Your task to perform on an android device: Open accessibility settings Image 0: 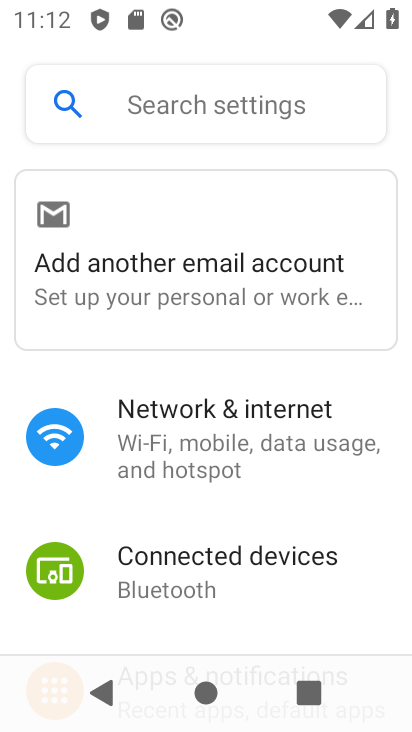
Step 0: drag from (264, 530) to (320, 158)
Your task to perform on an android device: Open accessibility settings Image 1: 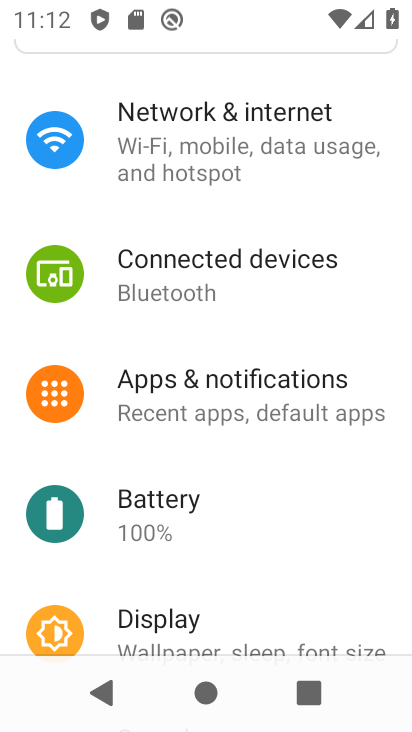
Step 1: drag from (201, 622) to (283, 149)
Your task to perform on an android device: Open accessibility settings Image 2: 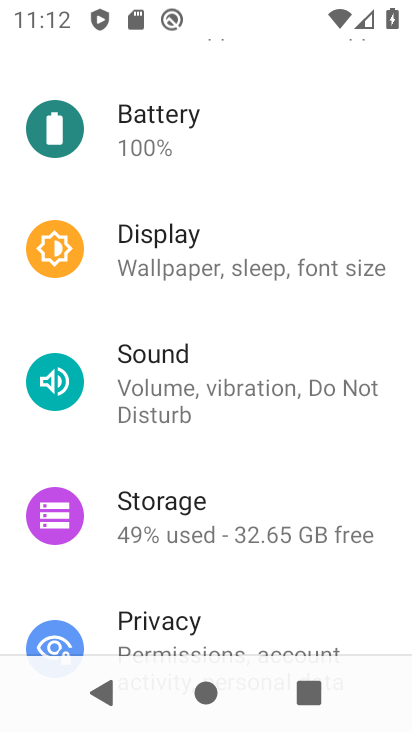
Step 2: drag from (167, 631) to (248, 204)
Your task to perform on an android device: Open accessibility settings Image 3: 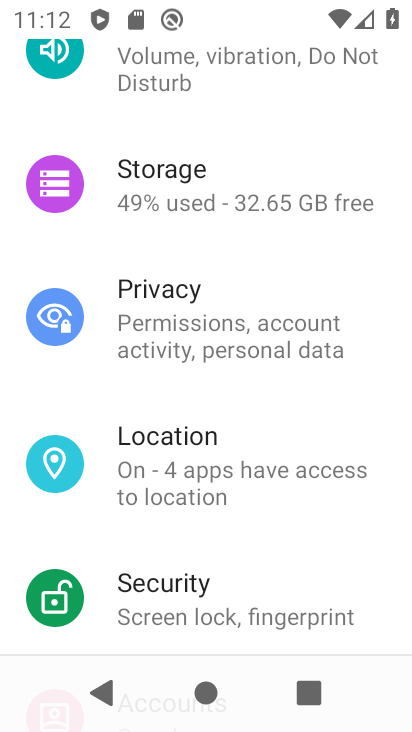
Step 3: drag from (152, 618) to (238, 231)
Your task to perform on an android device: Open accessibility settings Image 4: 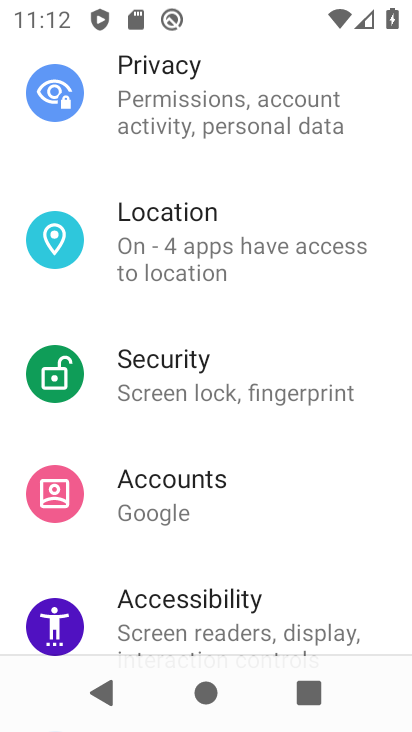
Step 4: click (194, 602)
Your task to perform on an android device: Open accessibility settings Image 5: 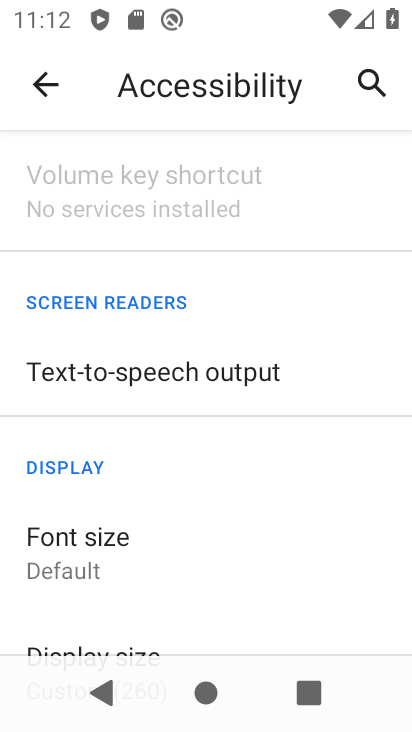
Step 5: task complete